Your task to perform on an android device: manage bookmarks in the chrome app Image 0: 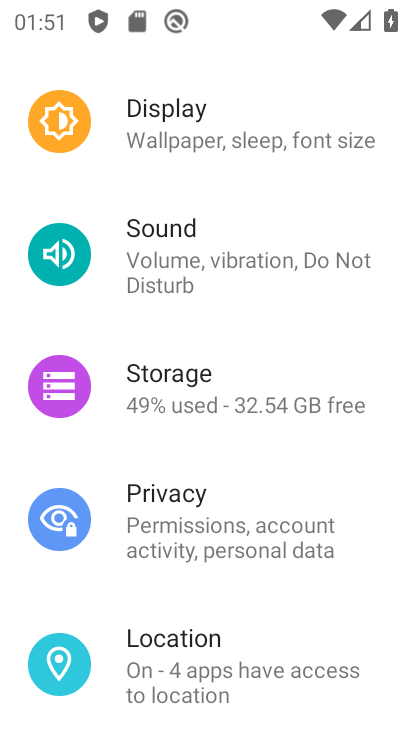
Step 0: press home button
Your task to perform on an android device: manage bookmarks in the chrome app Image 1: 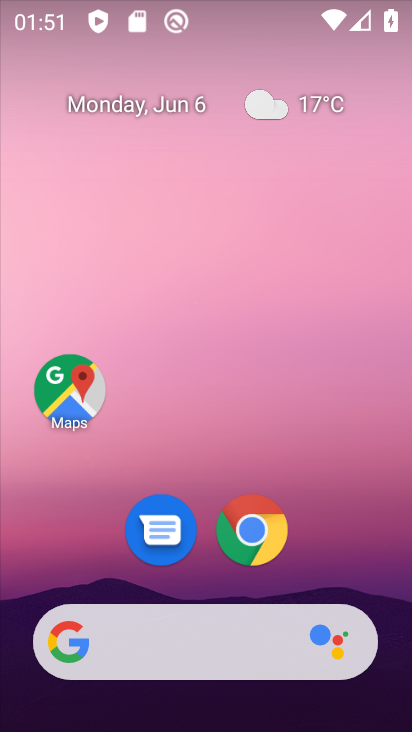
Step 1: click (235, 528)
Your task to perform on an android device: manage bookmarks in the chrome app Image 2: 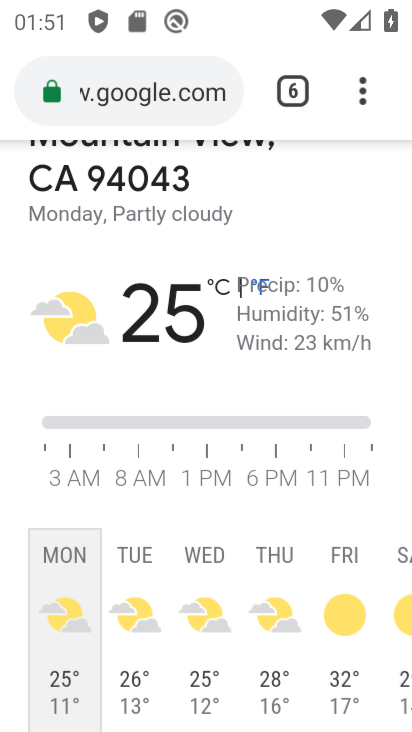
Step 2: click (373, 71)
Your task to perform on an android device: manage bookmarks in the chrome app Image 3: 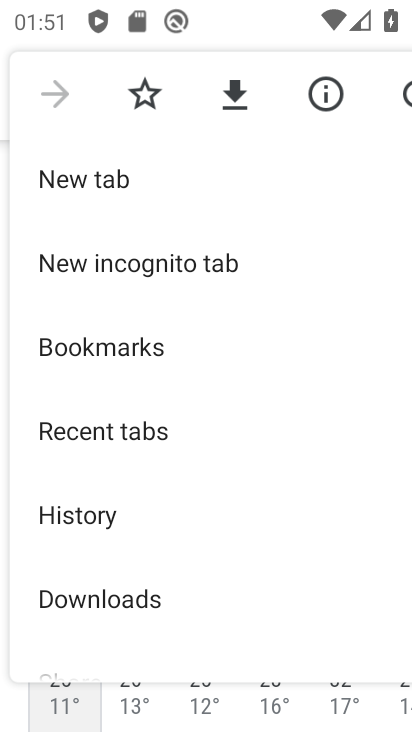
Step 3: click (141, 360)
Your task to perform on an android device: manage bookmarks in the chrome app Image 4: 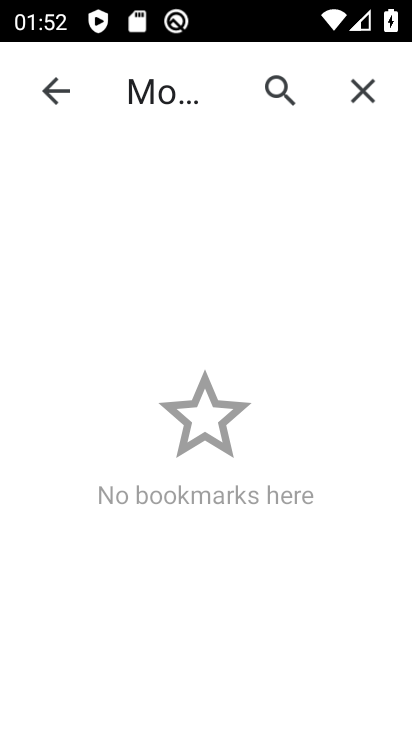
Step 4: task complete